Your task to perform on an android device: Open Amazon Image 0: 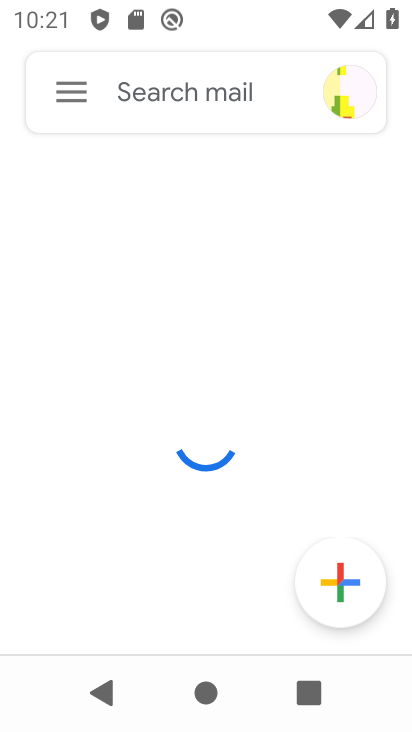
Step 0: press home button
Your task to perform on an android device: Open Amazon Image 1: 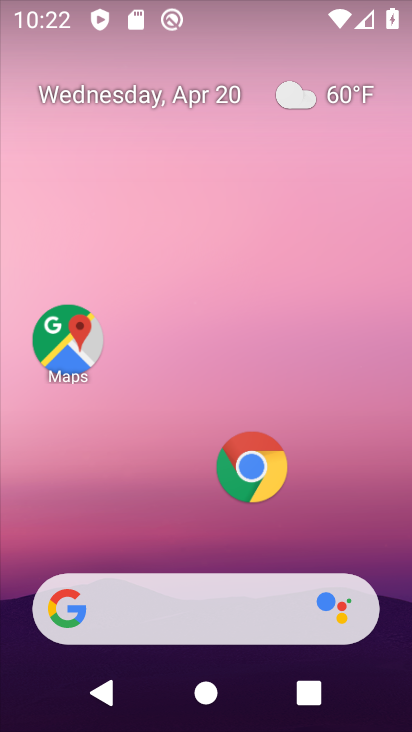
Step 1: click (261, 453)
Your task to perform on an android device: Open Amazon Image 2: 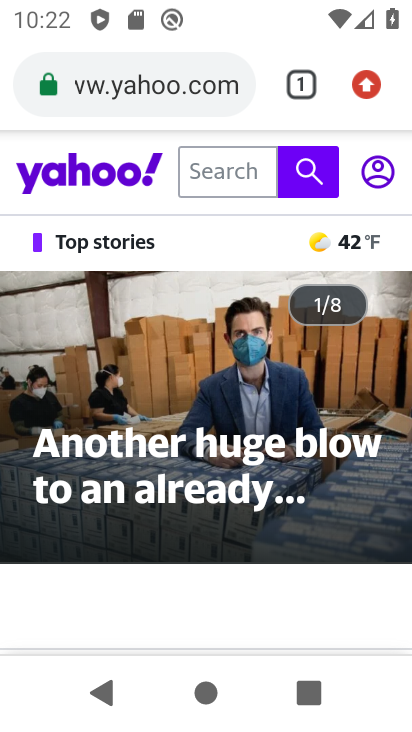
Step 2: click (158, 91)
Your task to perform on an android device: Open Amazon Image 3: 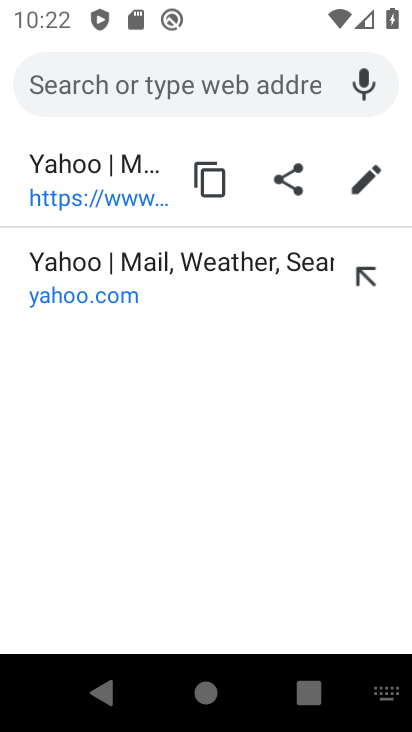
Step 3: type "amazon"
Your task to perform on an android device: Open Amazon Image 4: 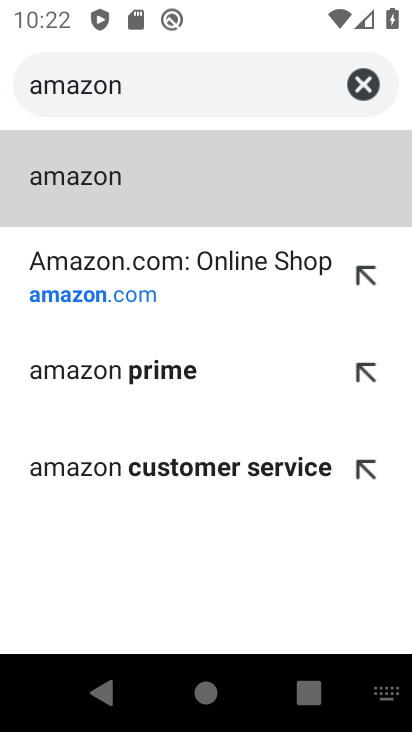
Step 4: click (60, 184)
Your task to perform on an android device: Open Amazon Image 5: 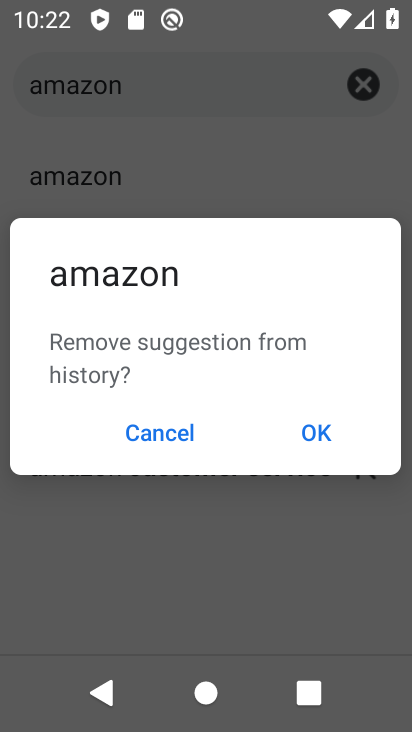
Step 5: click (168, 440)
Your task to perform on an android device: Open Amazon Image 6: 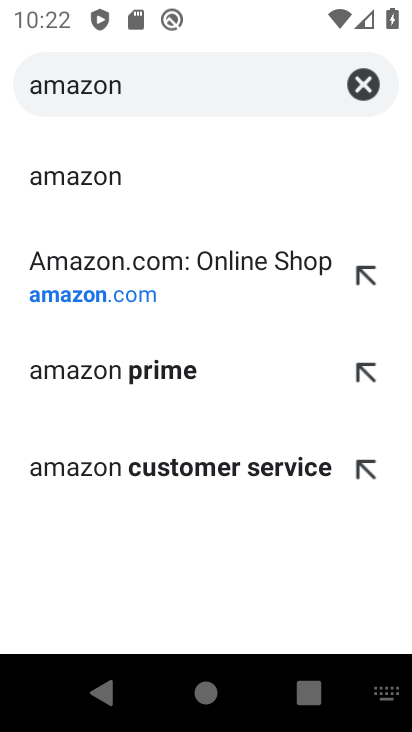
Step 6: click (64, 201)
Your task to perform on an android device: Open Amazon Image 7: 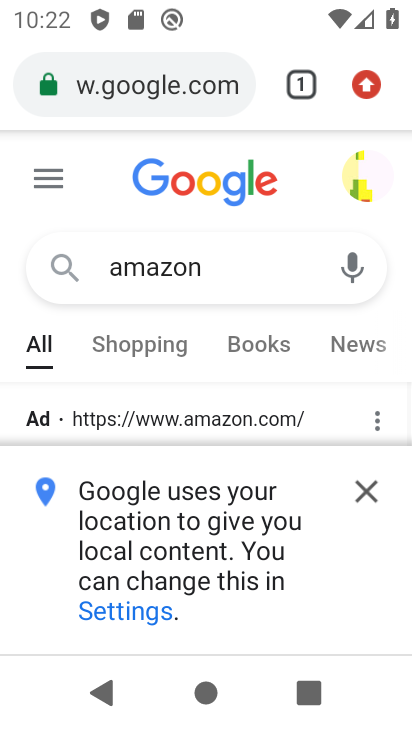
Step 7: drag from (224, 383) to (214, 193)
Your task to perform on an android device: Open Amazon Image 8: 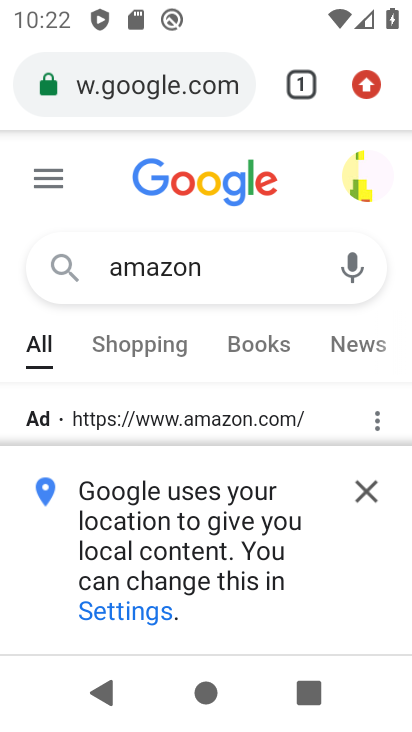
Step 8: drag from (141, 403) to (100, 238)
Your task to perform on an android device: Open Amazon Image 9: 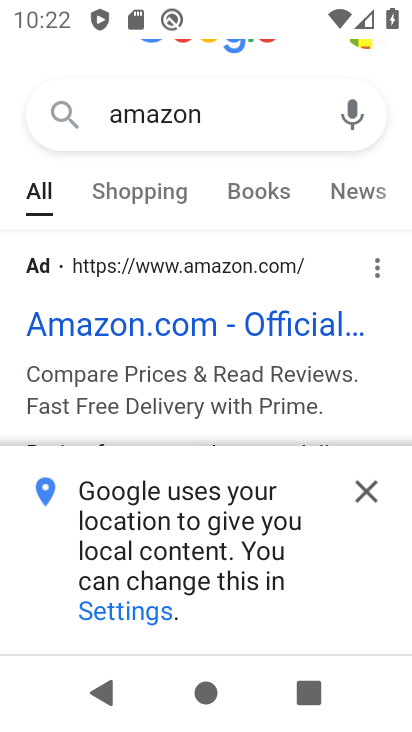
Step 9: click (134, 327)
Your task to perform on an android device: Open Amazon Image 10: 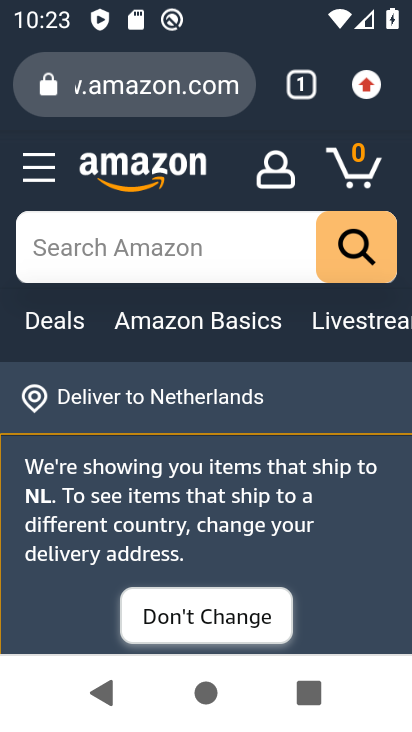
Step 10: task complete